Your task to perform on an android device: Go to battery settings Image 0: 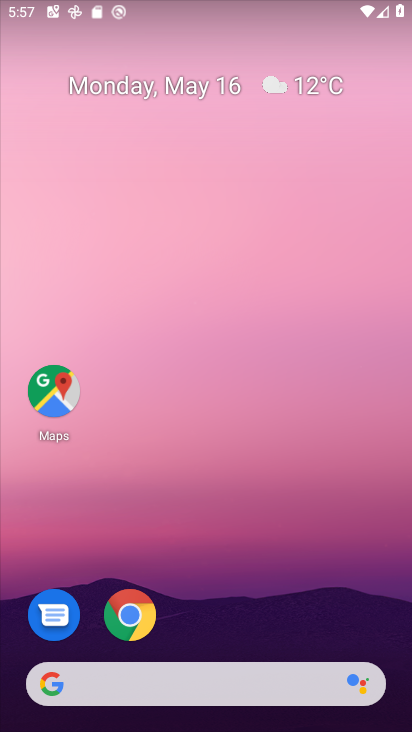
Step 0: drag from (291, 298) to (331, 98)
Your task to perform on an android device: Go to battery settings Image 1: 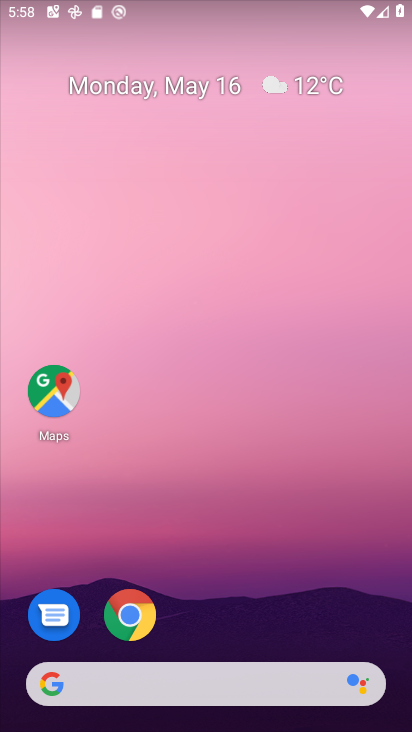
Step 1: drag from (225, 489) to (360, 48)
Your task to perform on an android device: Go to battery settings Image 2: 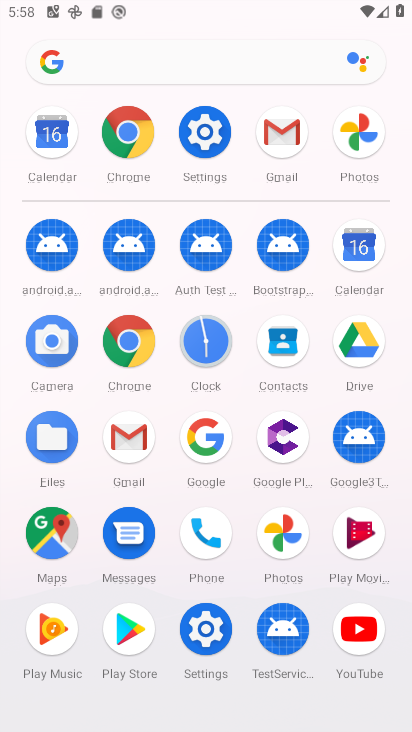
Step 2: click (192, 145)
Your task to perform on an android device: Go to battery settings Image 3: 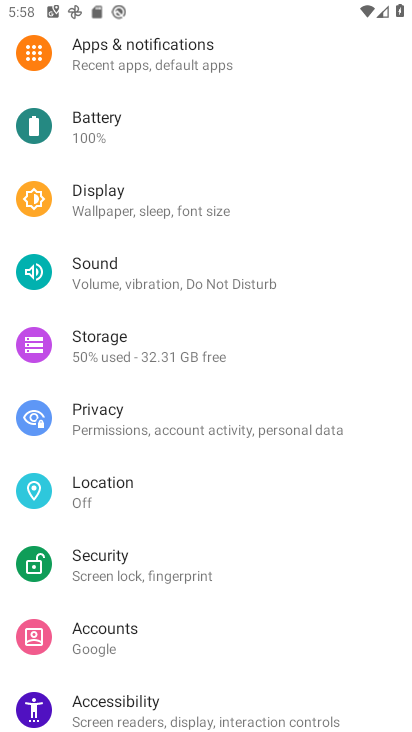
Step 3: click (105, 130)
Your task to perform on an android device: Go to battery settings Image 4: 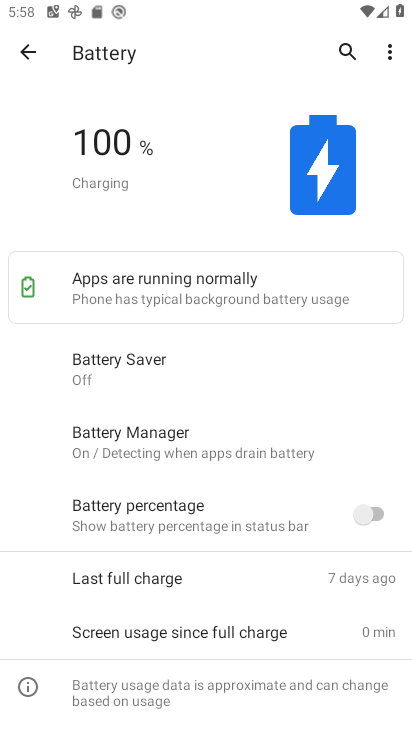
Step 4: task complete